Your task to perform on an android device: check the backup settings in the google photos Image 0: 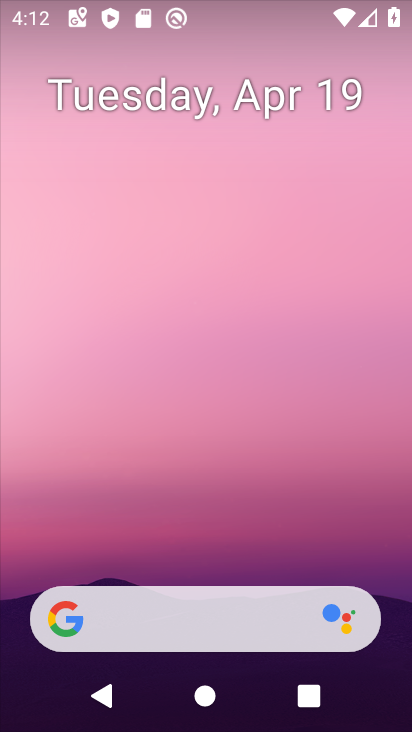
Step 0: drag from (256, 553) to (226, 88)
Your task to perform on an android device: check the backup settings in the google photos Image 1: 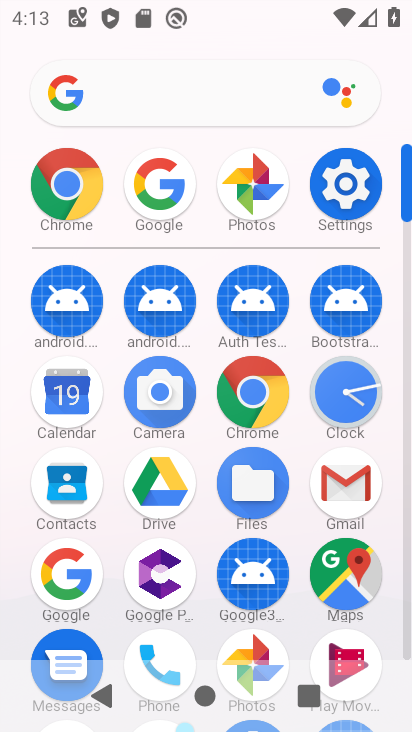
Step 1: click (254, 183)
Your task to perform on an android device: check the backup settings in the google photos Image 2: 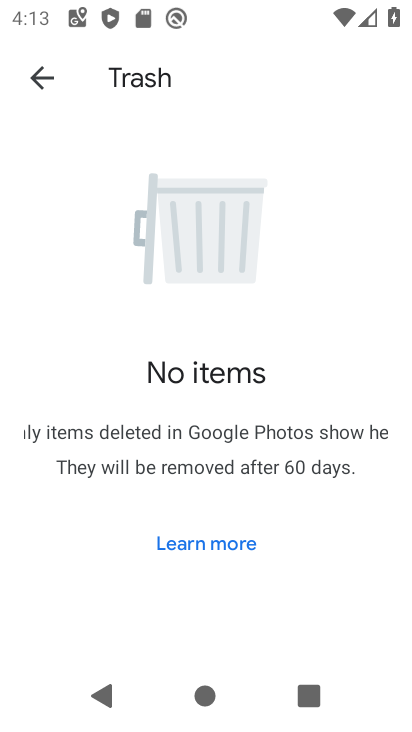
Step 2: press back button
Your task to perform on an android device: check the backup settings in the google photos Image 3: 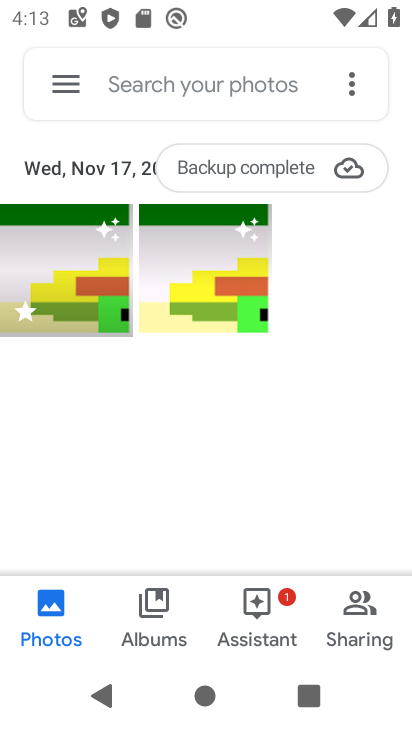
Step 3: click (76, 90)
Your task to perform on an android device: check the backup settings in the google photos Image 4: 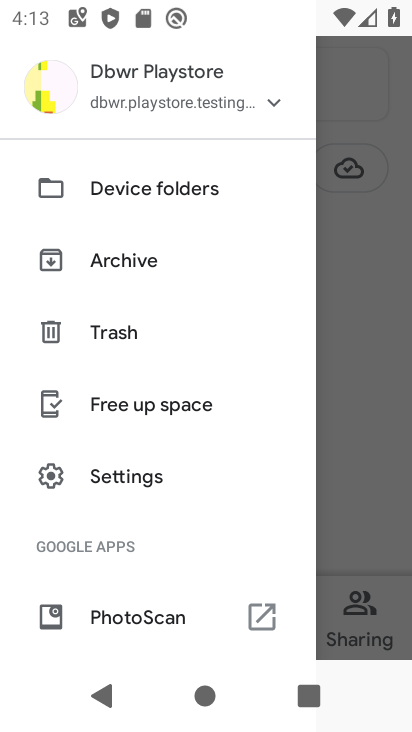
Step 4: click (128, 473)
Your task to perform on an android device: check the backup settings in the google photos Image 5: 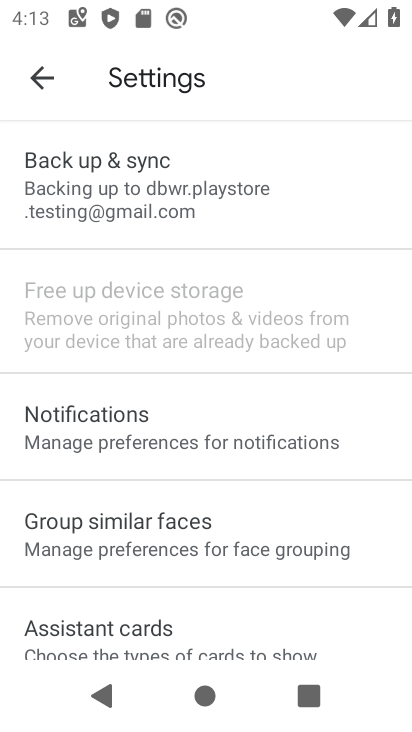
Step 5: click (116, 178)
Your task to perform on an android device: check the backup settings in the google photos Image 6: 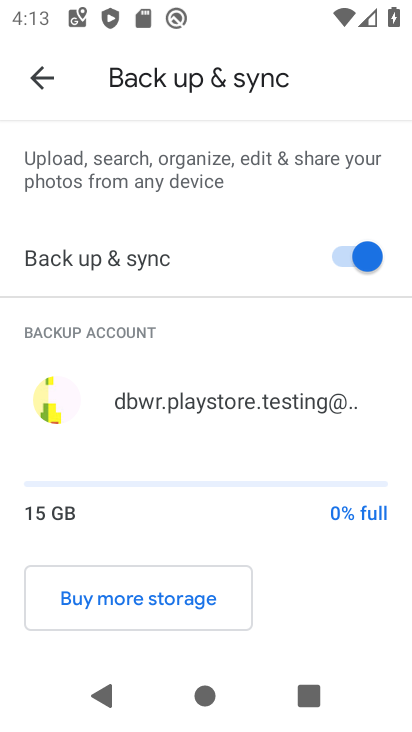
Step 6: task complete